Your task to perform on an android device: Go to calendar. Show me events next week Image 0: 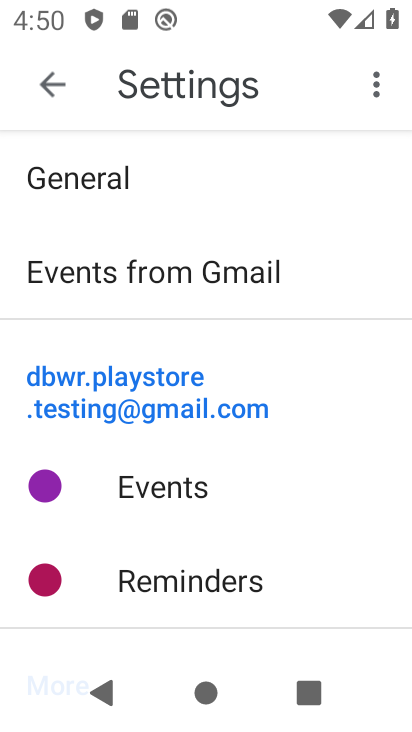
Step 0: press home button
Your task to perform on an android device: Go to calendar. Show me events next week Image 1: 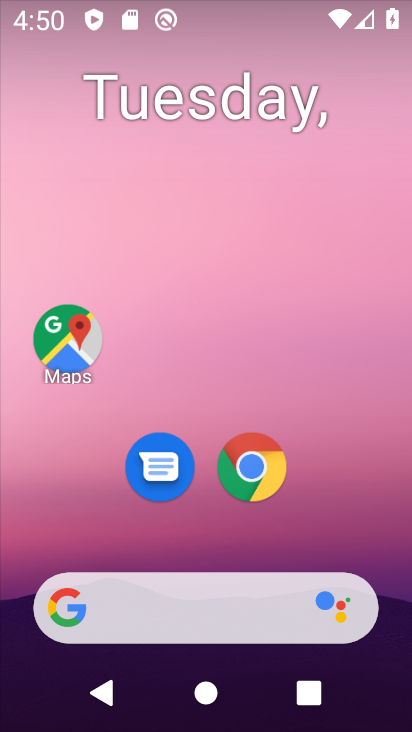
Step 1: drag from (293, 548) to (293, 148)
Your task to perform on an android device: Go to calendar. Show me events next week Image 2: 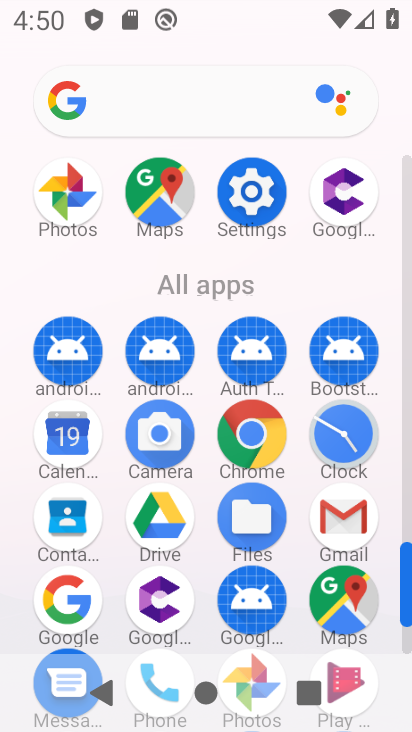
Step 2: click (59, 458)
Your task to perform on an android device: Go to calendar. Show me events next week Image 3: 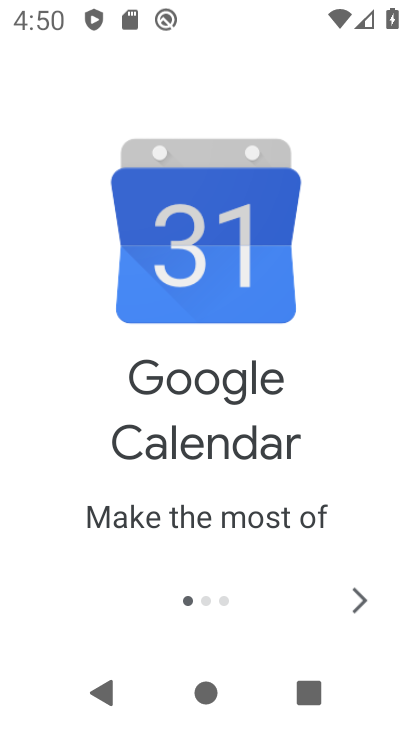
Step 3: click (358, 609)
Your task to perform on an android device: Go to calendar. Show me events next week Image 4: 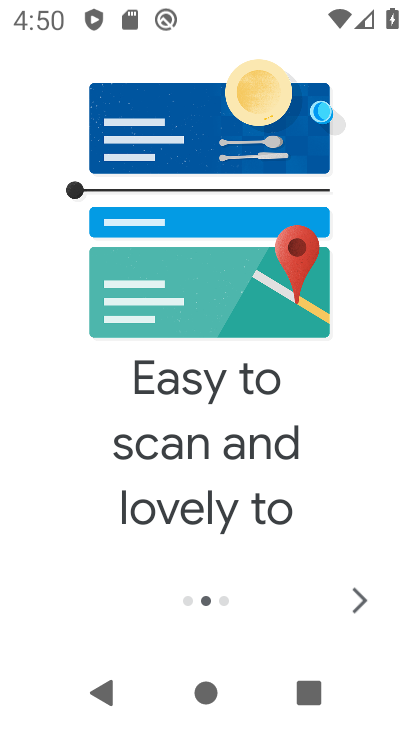
Step 4: click (358, 609)
Your task to perform on an android device: Go to calendar. Show me events next week Image 5: 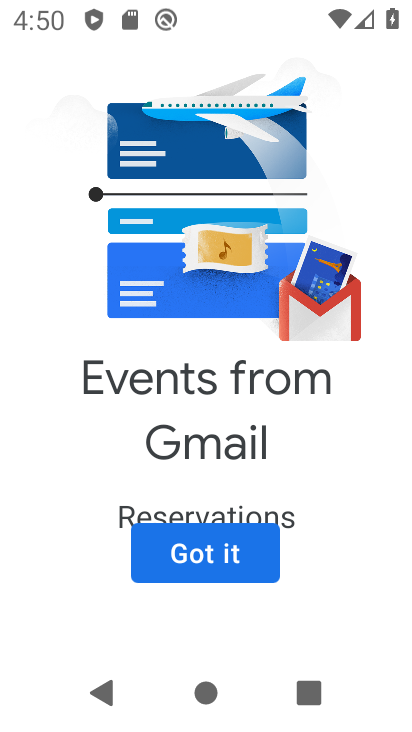
Step 5: click (232, 571)
Your task to perform on an android device: Go to calendar. Show me events next week Image 6: 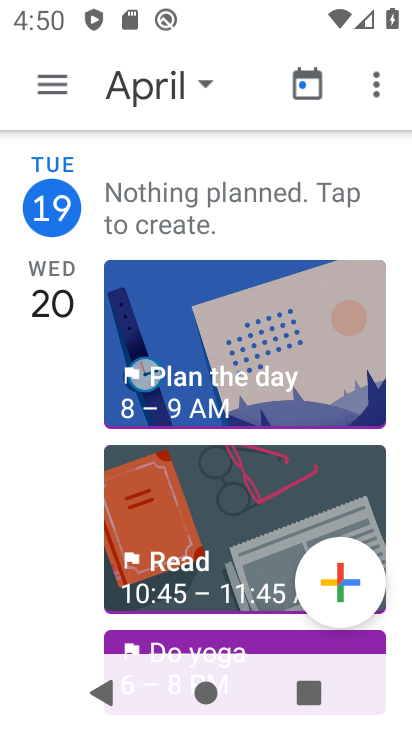
Step 6: click (145, 103)
Your task to perform on an android device: Go to calendar. Show me events next week Image 7: 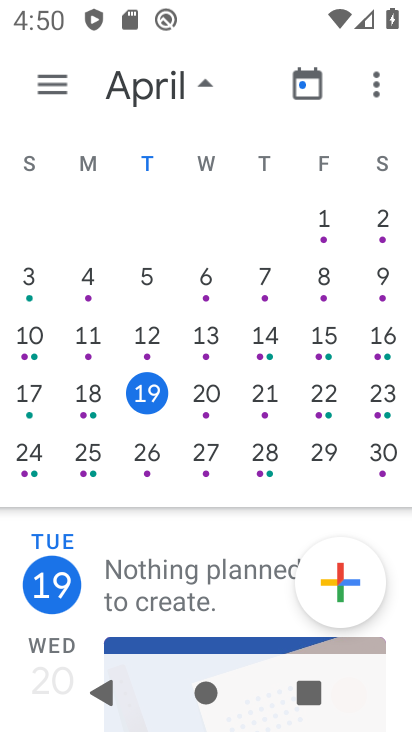
Step 7: click (39, 465)
Your task to perform on an android device: Go to calendar. Show me events next week Image 8: 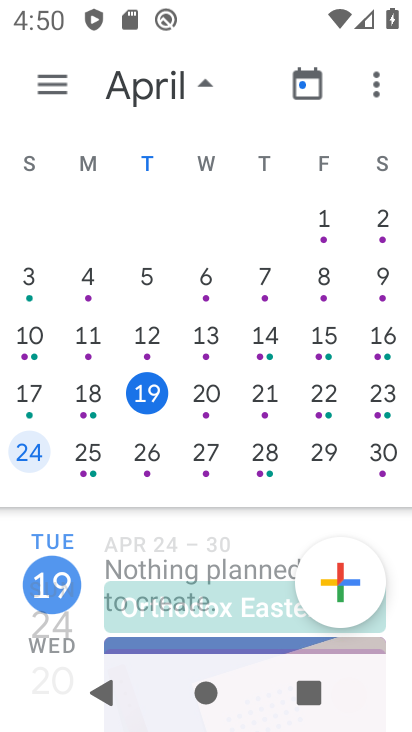
Step 8: click (99, 475)
Your task to perform on an android device: Go to calendar. Show me events next week Image 9: 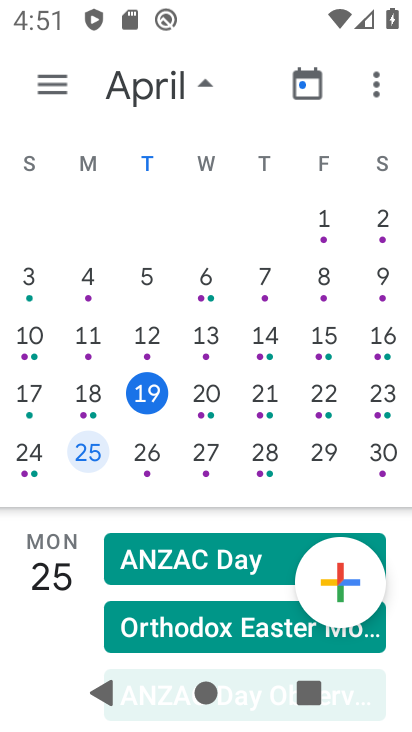
Step 9: click (42, 462)
Your task to perform on an android device: Go to calendar. Show me events next week Image 10: 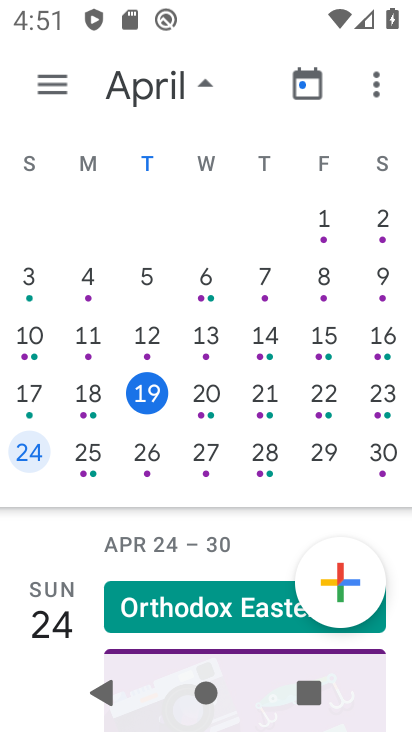
Step 10: click (150, 466)
Your task to perform on an android device: Go to calendar. Show me events next week Image 11: 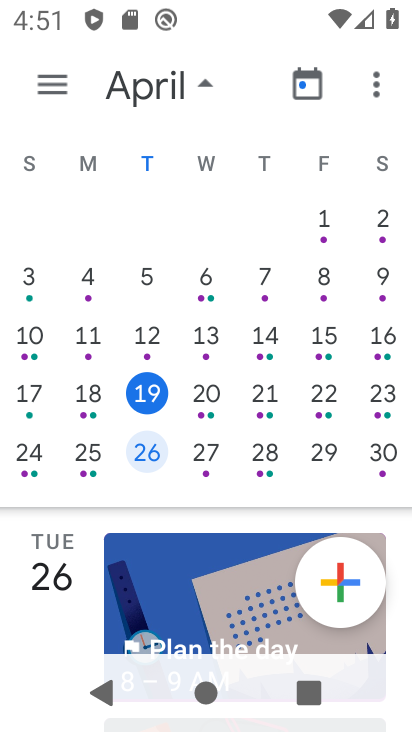
Step 11: click (200, 468)
Your task to perform on an android device: Go to calendar. Show me events next week Image 12: 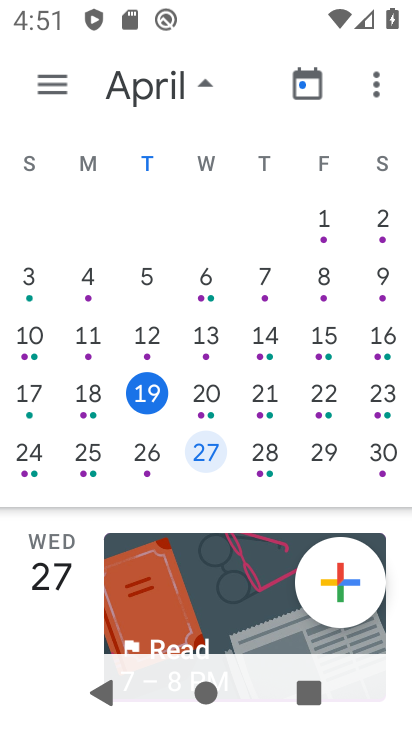
Step 12: click (251, 461)
Your task to perform on an android device: Go to calendar. Show me events next week Image 13: 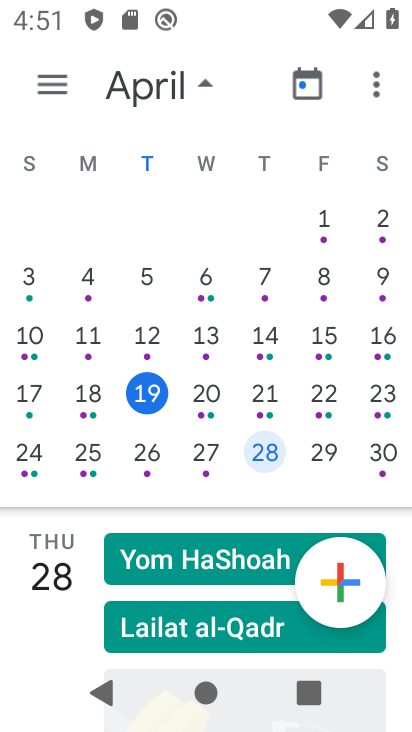
Step 13: click (324, 457)
Your task to perform on an android device: Go to calendar. Show me events next week Image 14: 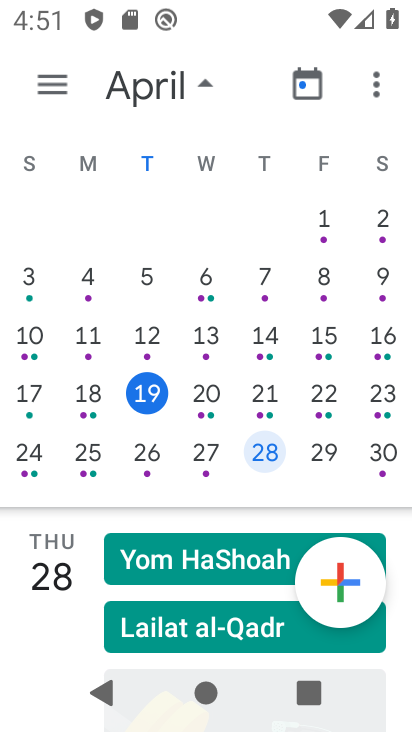
Step 14: click (379, 460)
Your task to perform on an android device: Go to calendar. Show me events next week Image 15: 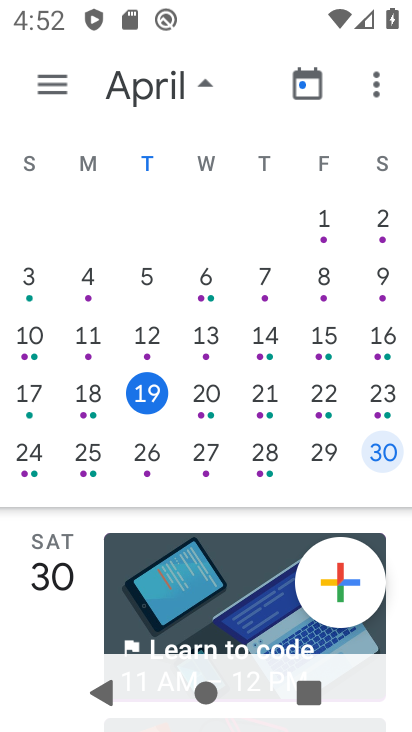
Step 15: click (250, 406)
Your task to perform on an android device: Go to calendar. Show me events next week Image 16: 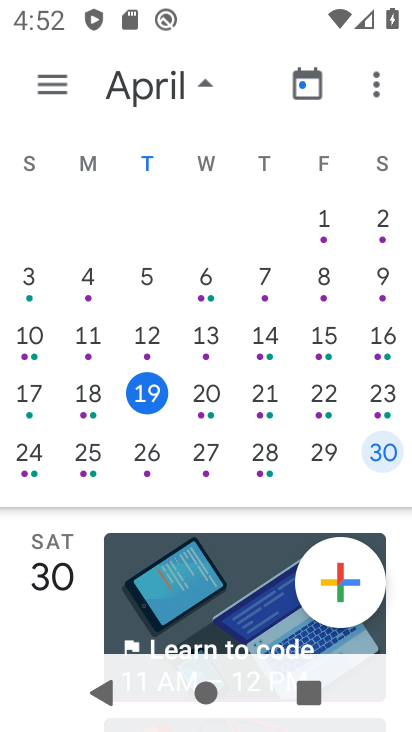
Step 16: click (326, 404)
Your task to perform on an android device: Go to calendar. Show me events next week Image 17: 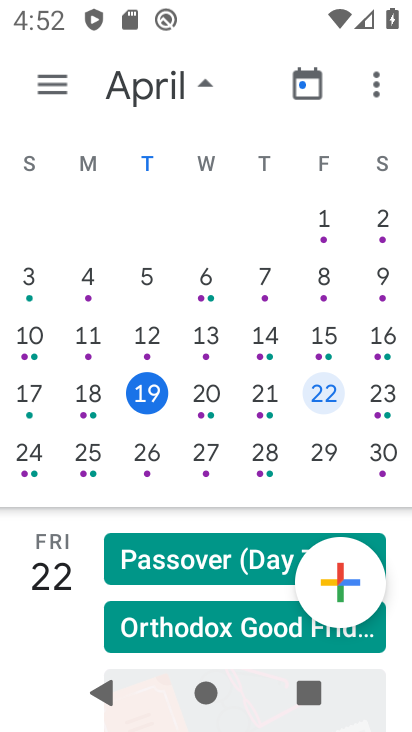
Step 17: click (383, 403)
Your task to perform on an android device: Go to calendar. Show me events next week Image 18: 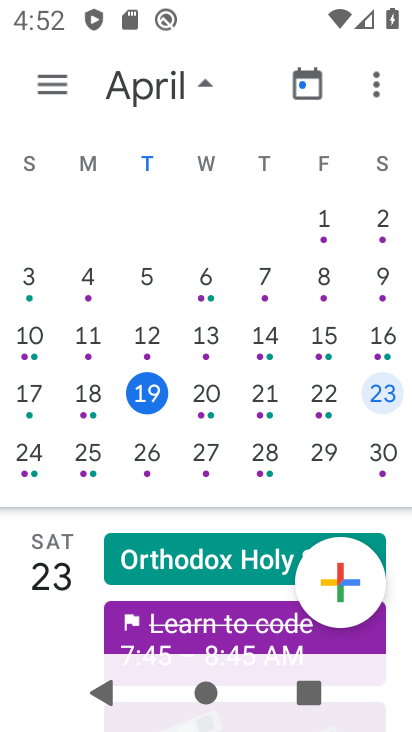
Step 18: task complete